Your task to perform on an android device: change keyboard looks Image 0: 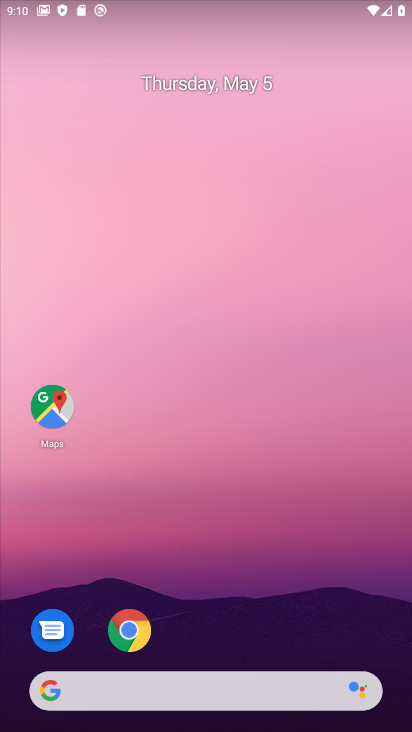
Step 0: drag from (197, 619) to (58, 106)
Your task to perform on an android device: change keyboard looks Image 1: 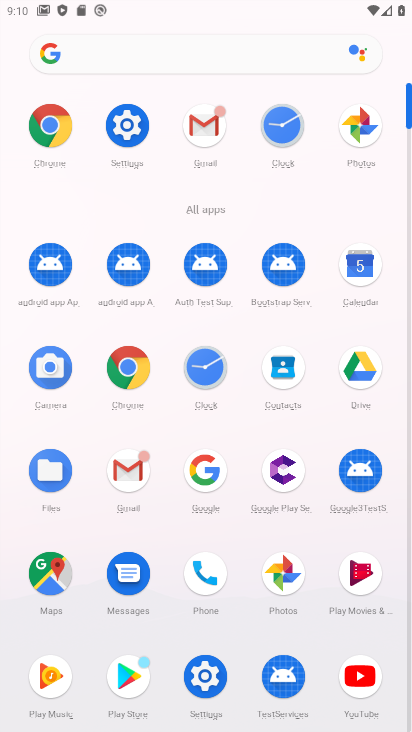
Step 1: click (126, 130)
Your task to perform on an android device: change keyboard looks Image 2: 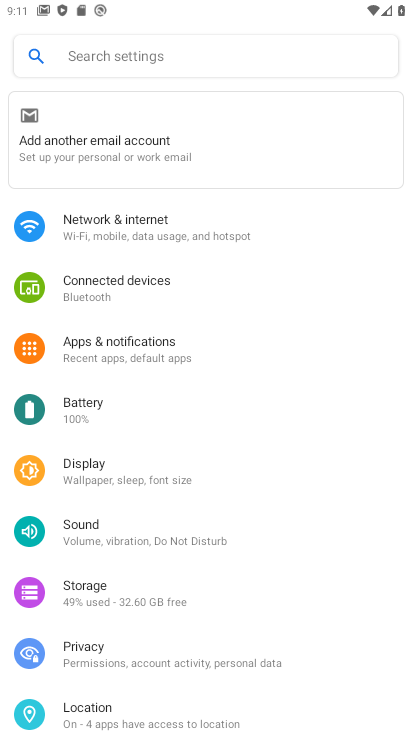
Step 2: drag from (281, 690) to (288, 118)
Your task to perform on an android device: change keyboard looks Image 3: 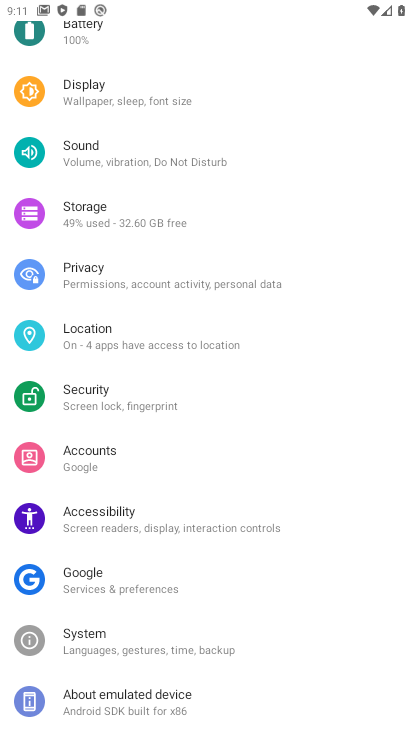
Step 3: click (108, 645)
Your task to perform on an android device: change keyboard looks Image 4: 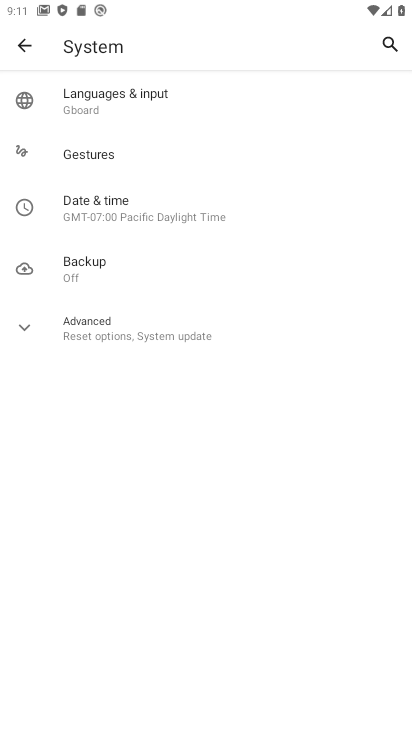
Step 4: click (115, 103)
Your task to perform on an android device: change keyboard looks Image 5: 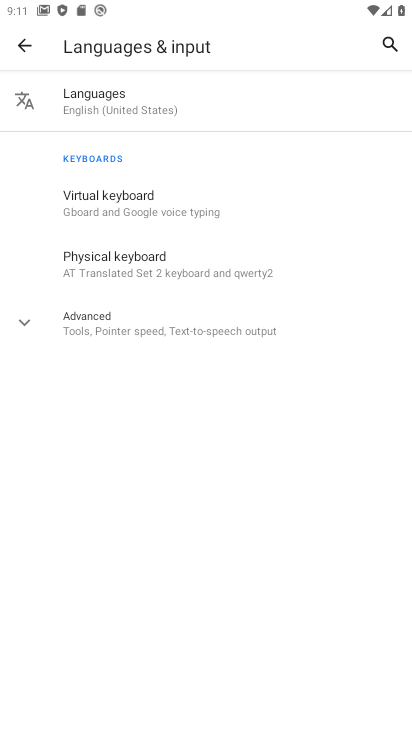
Step 5: click (116, 207)
Your task to perform on an android device: change keyboard looks Image 6: 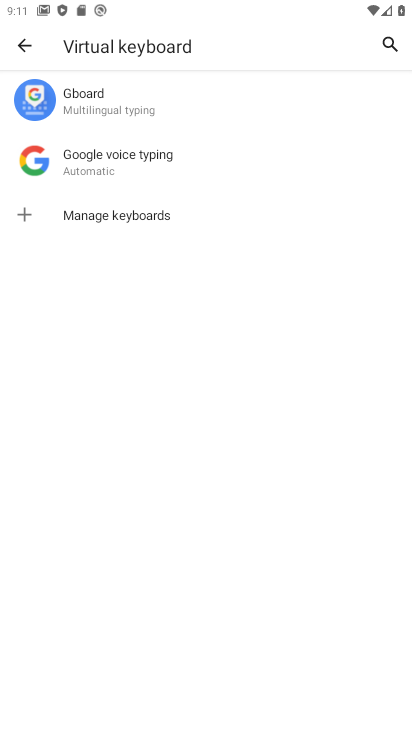
Step 6: click (98, 106)
Your task to perform on an android device: change keyboard looks Image 7: 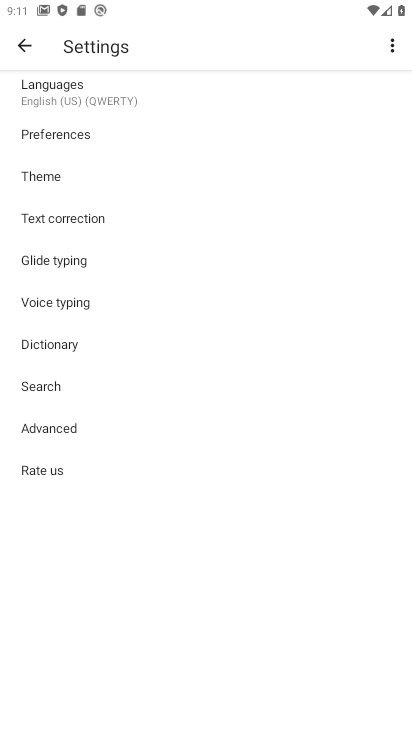
Step 7: click (45, 176)
Your task to perform on an android device: change keyboard looks Image 8: 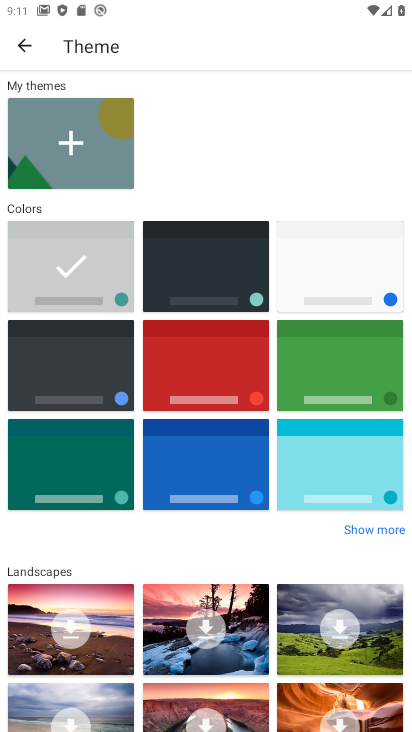
Step 8: click (203, 624)
Your task to perform on an android device: change keyboard looks Image 9: 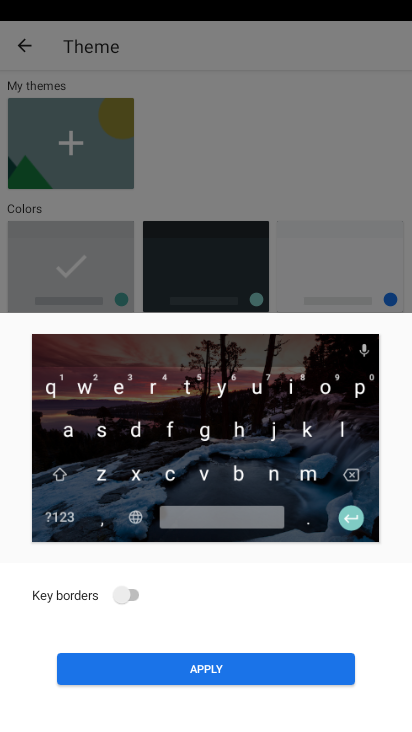
Step 9: click (198, 662)
Your task to perform on an android device: change keyboard looks Image 10: 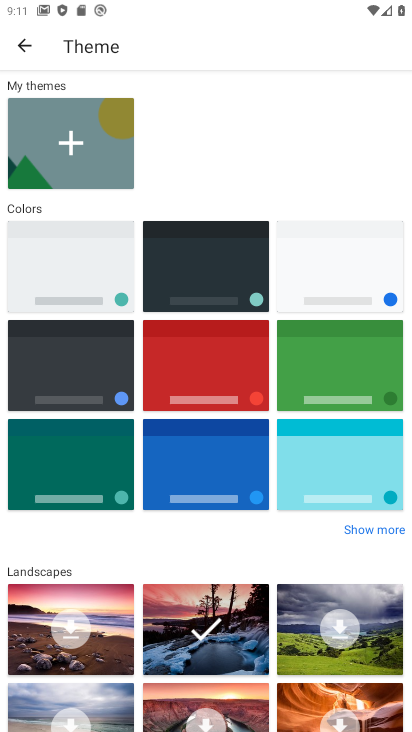
Step 10: task complete